Your task to perform on an android device: What's on the menu at IHOP? Image 0: 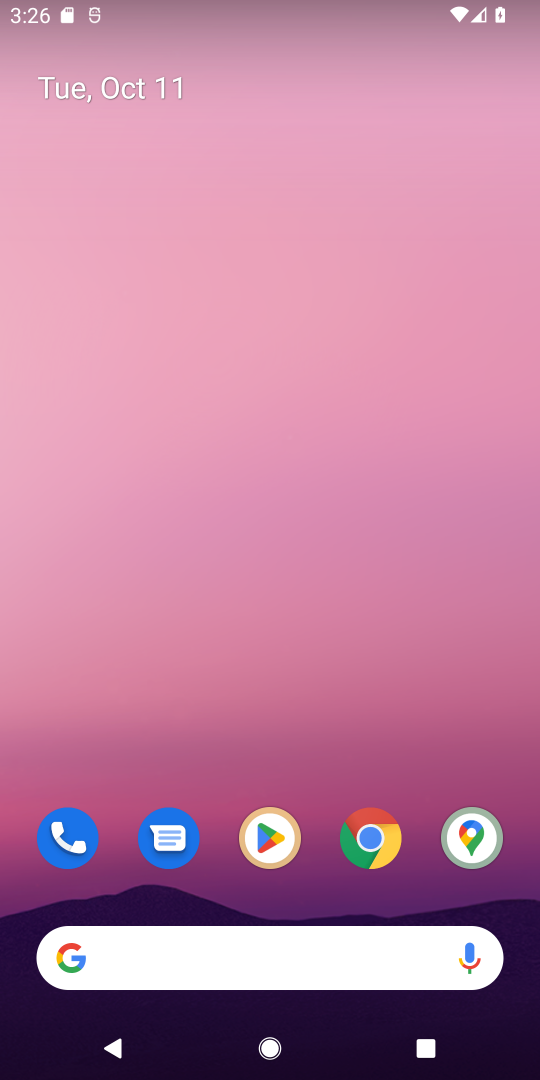
Step 0: click (292, 954)
Your task to perform on an android device: What's on the menu at IHOP? Image 1: 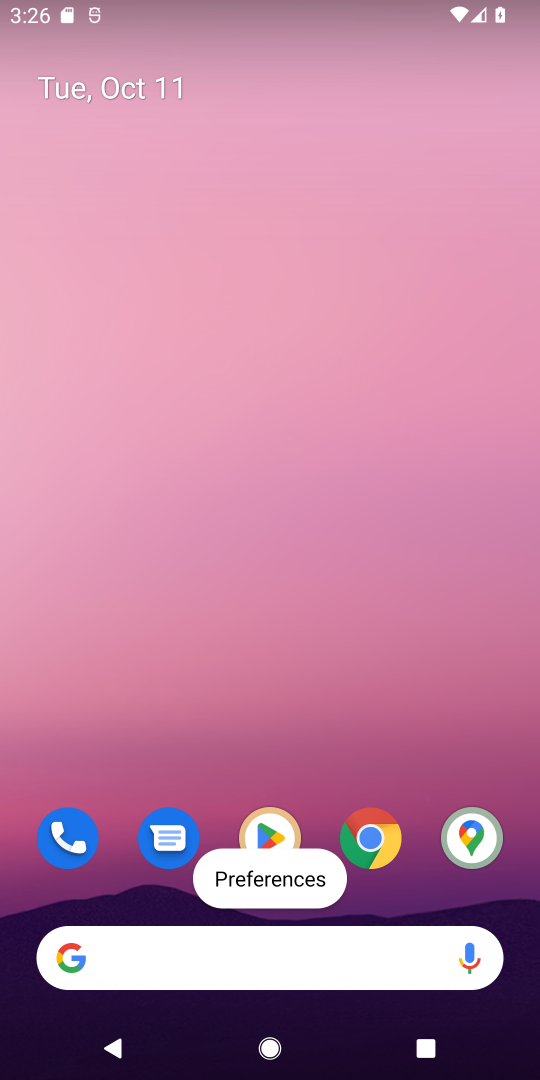
Step 1: click (270, 947)
Your task to perform on an android device: What's on the menu at IHOP? Image 2: 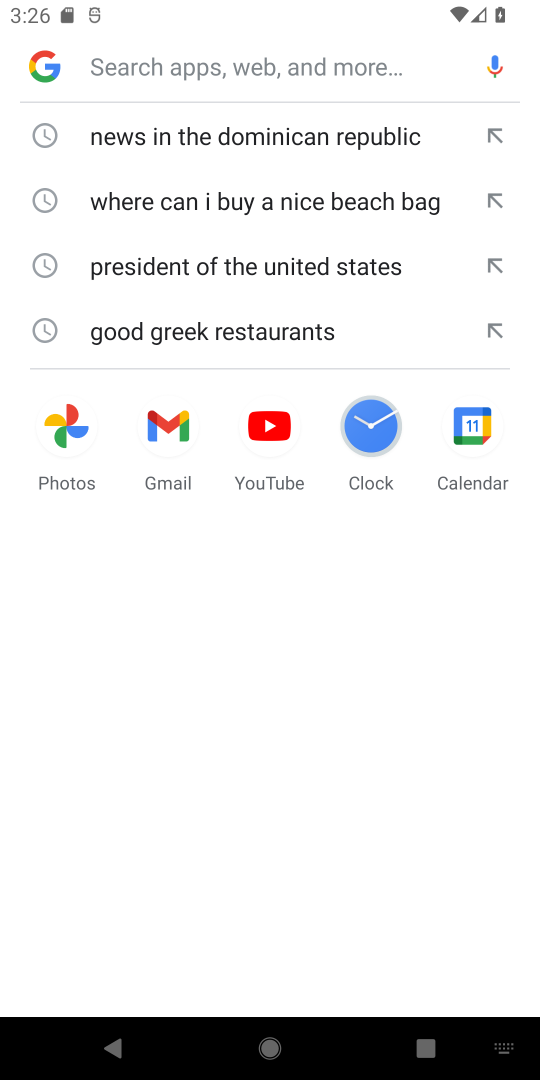
Step 2: type "menu at IHOP"
Your task to perform on an android device: What's on the menu at IHOP? Image 3: 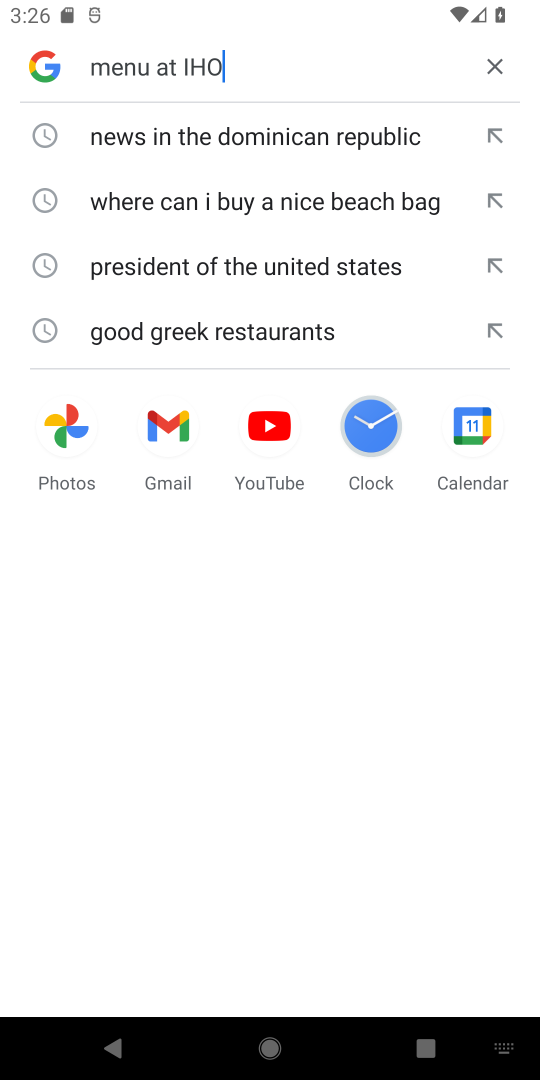
Step 3: type ""
Your task to perform on an android device: What's on the menu at IHOP? Image 4: 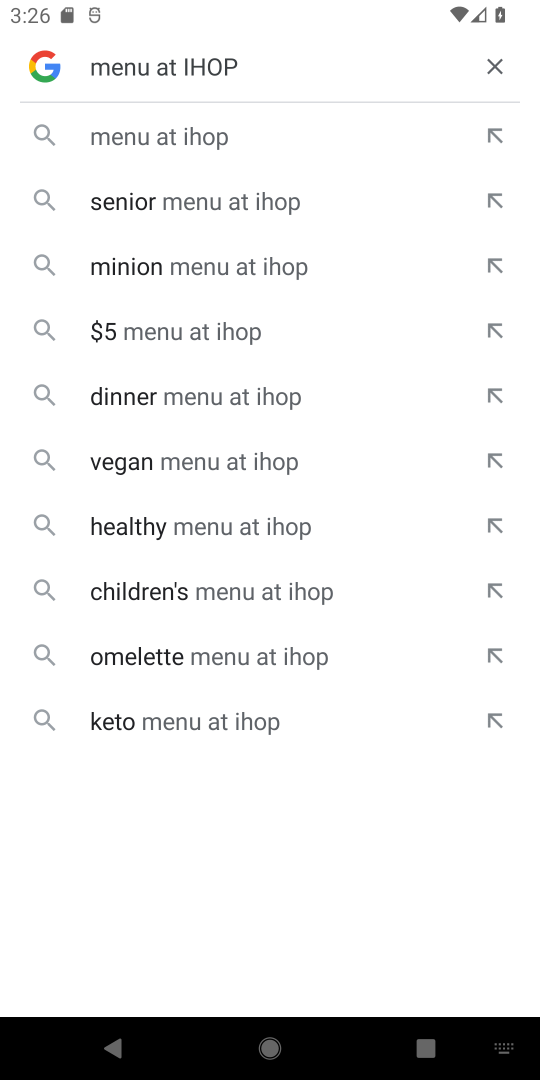
Step 4: click (235, 131)
Your task to perform on an android device: What's on the menu at IHOP? Image 5: 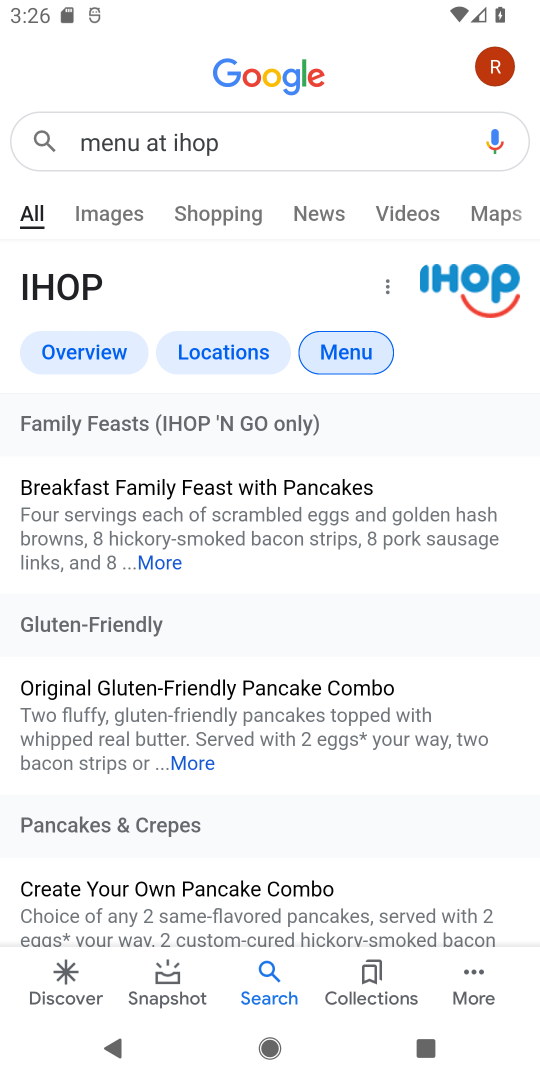
Step 5: drag from (297, 853) to (349, 533)
Your task to perform on an android device: What's on the menu at IHOP? Image 6: 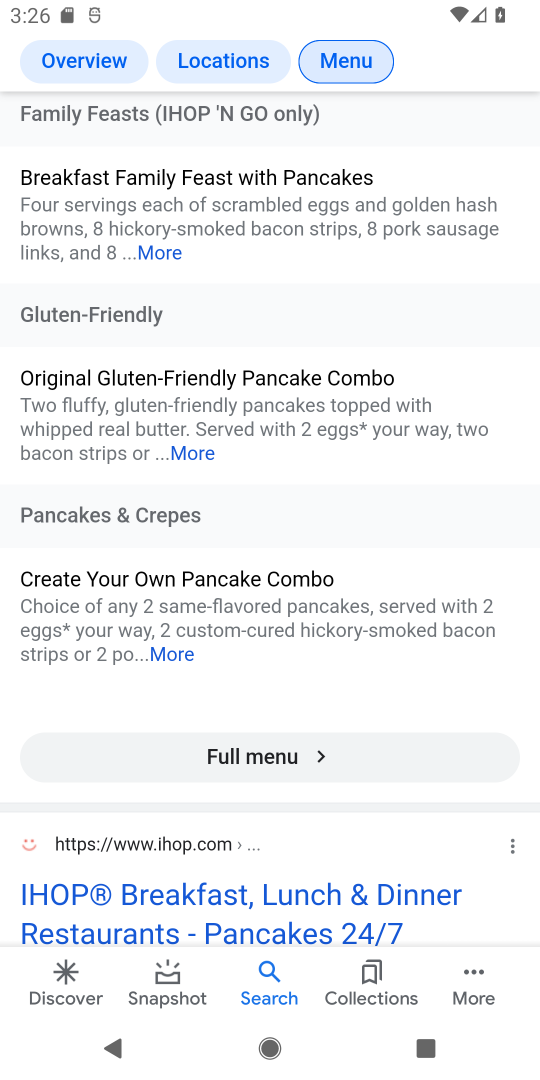
Step 6: drag from (341, 802) to (366, 608)
Your task to perform on an android device: What's on the menu at IHOP? Image 7: 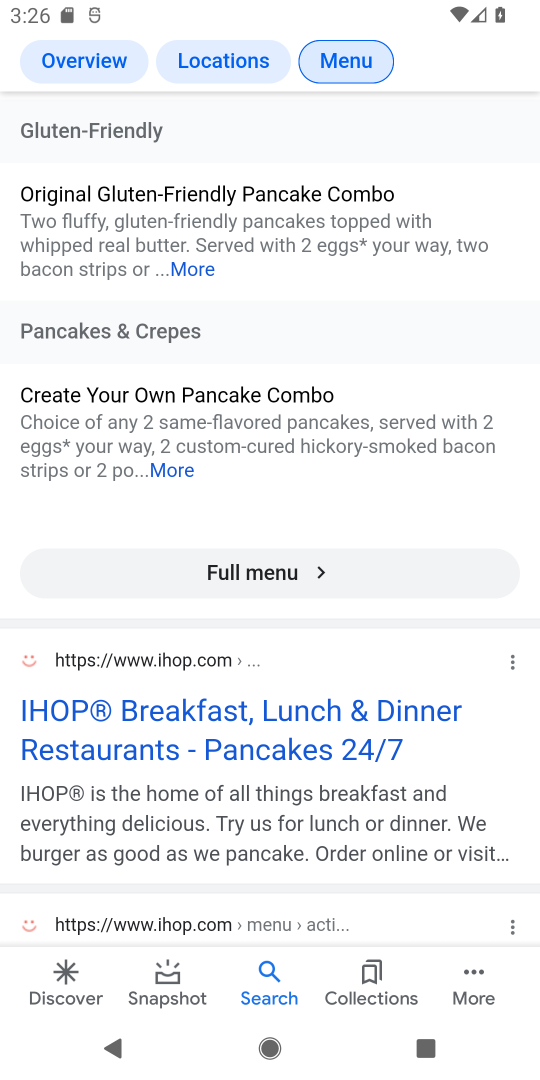
Step 7: click (312, 756)
Your task to perform on an android device: What's on the menu at IHOP? Image 8: 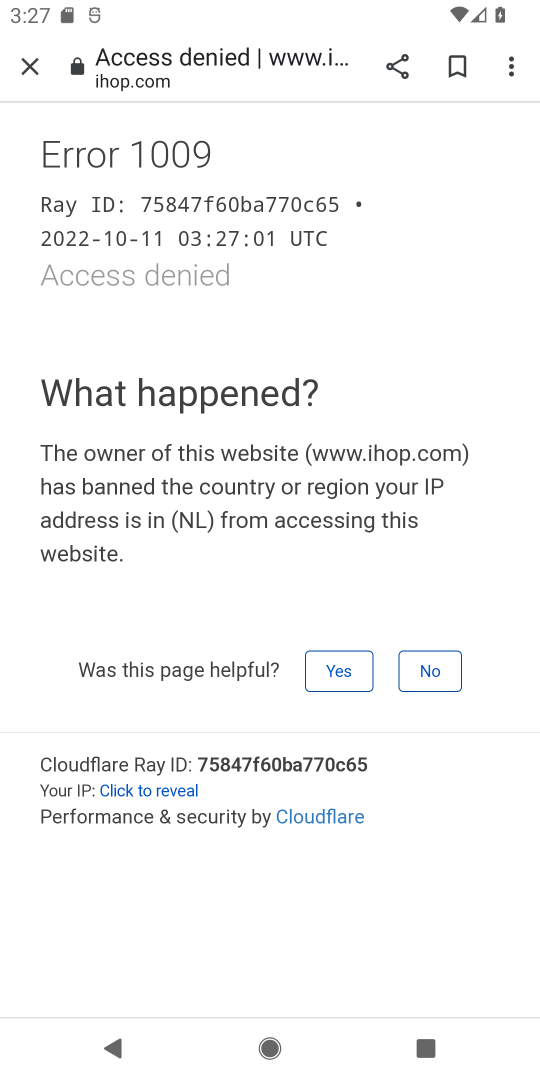
Step 8: task complete